Your task to perform on an android device: Search for pizza restaurants on Maps Image 0: 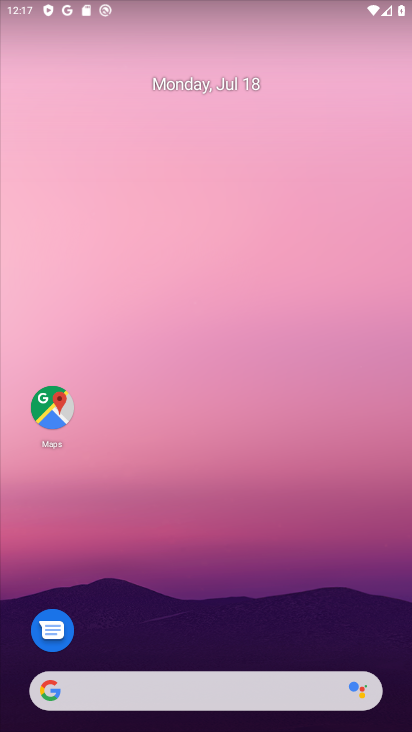
Step 0: drag from (288, 697) to (397, 369)
Your task to perform on an android device: Search for pizza restaurants on Maps Image 1: 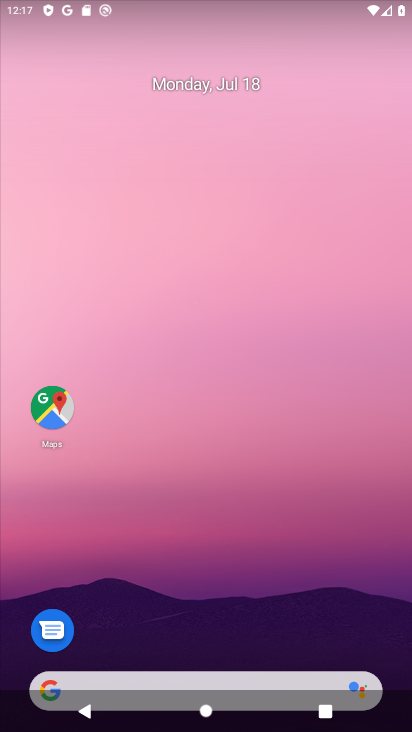
Step 1: drag from (173, 620) to (259, 29)
Your task to perform on an android device: Search for pizza restaurants on Maps Image 2: 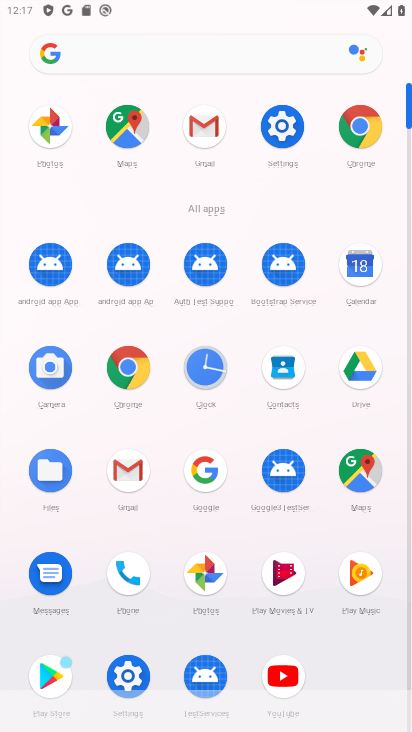
Step 2: click (343, 496)
Your task to perform on an android device: Search for pizza restaurants on Maps Image 3: 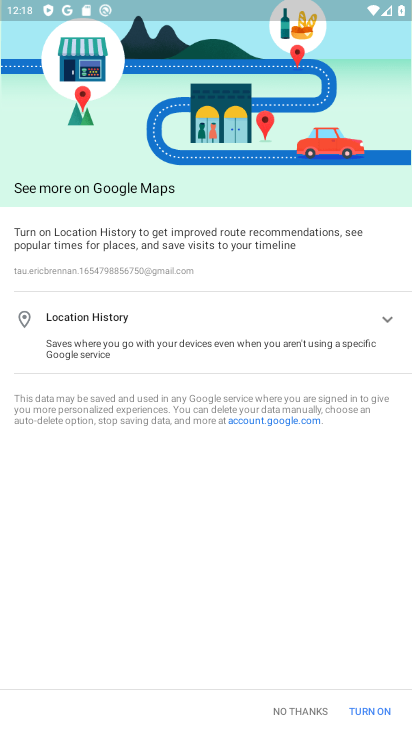
Step 3: press back button
Your task to perform on an android device: Search for pizza restaurants on Maps Image 4: 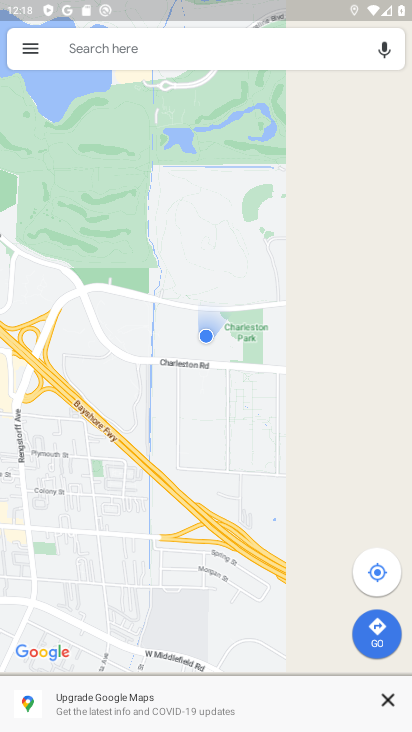
Step 4: press back button
Your task to perform on an android device: Search for pizza restaurants on Maps Image 5: 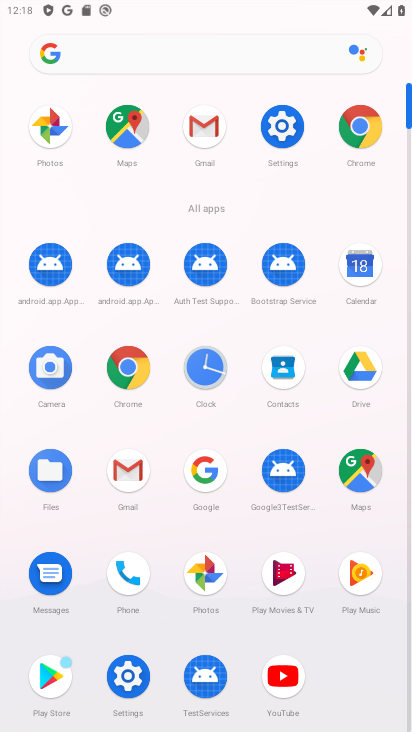
Step 5: click (366, 484)
Your task to perform on an android device: Search for pizza restaurants on Maps Image 6: 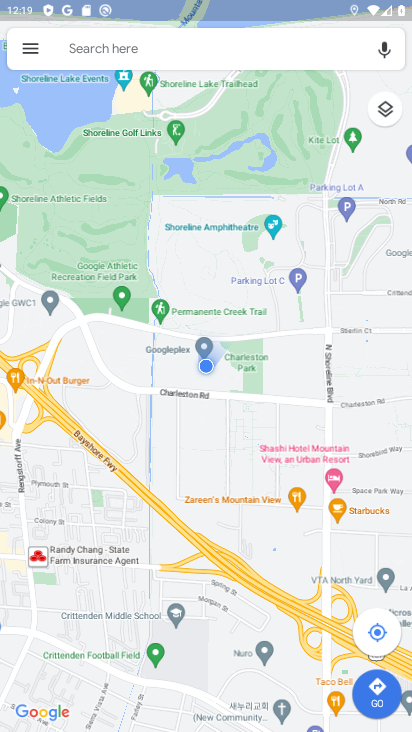
Step 6: click (108, 43)
Your task to perform on an android device: Search for pizza restaurants on Maps Image 7: 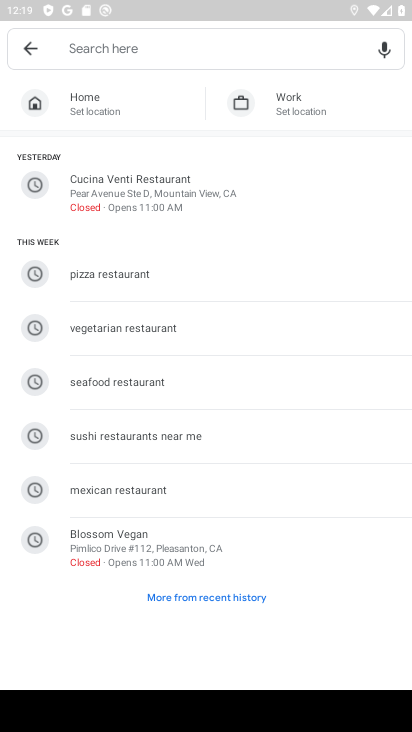
Step 7: click (161, 286)
Your task to perform on an android device: Search for pizza restaurants on Maps Image 8: 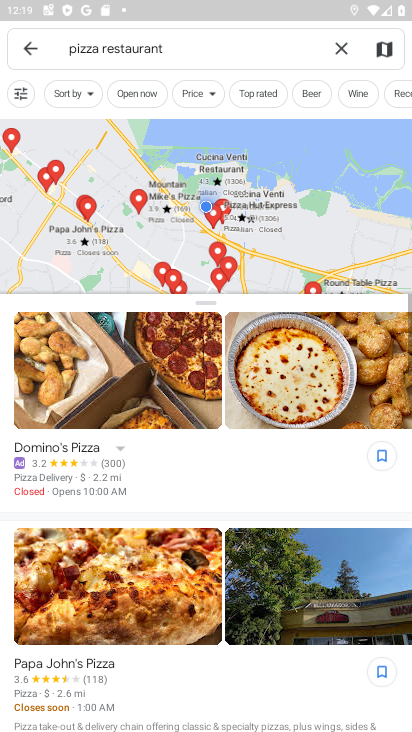
Step 8: task complete